Your task to perform on an android device: install app "Google Home" Image 0: 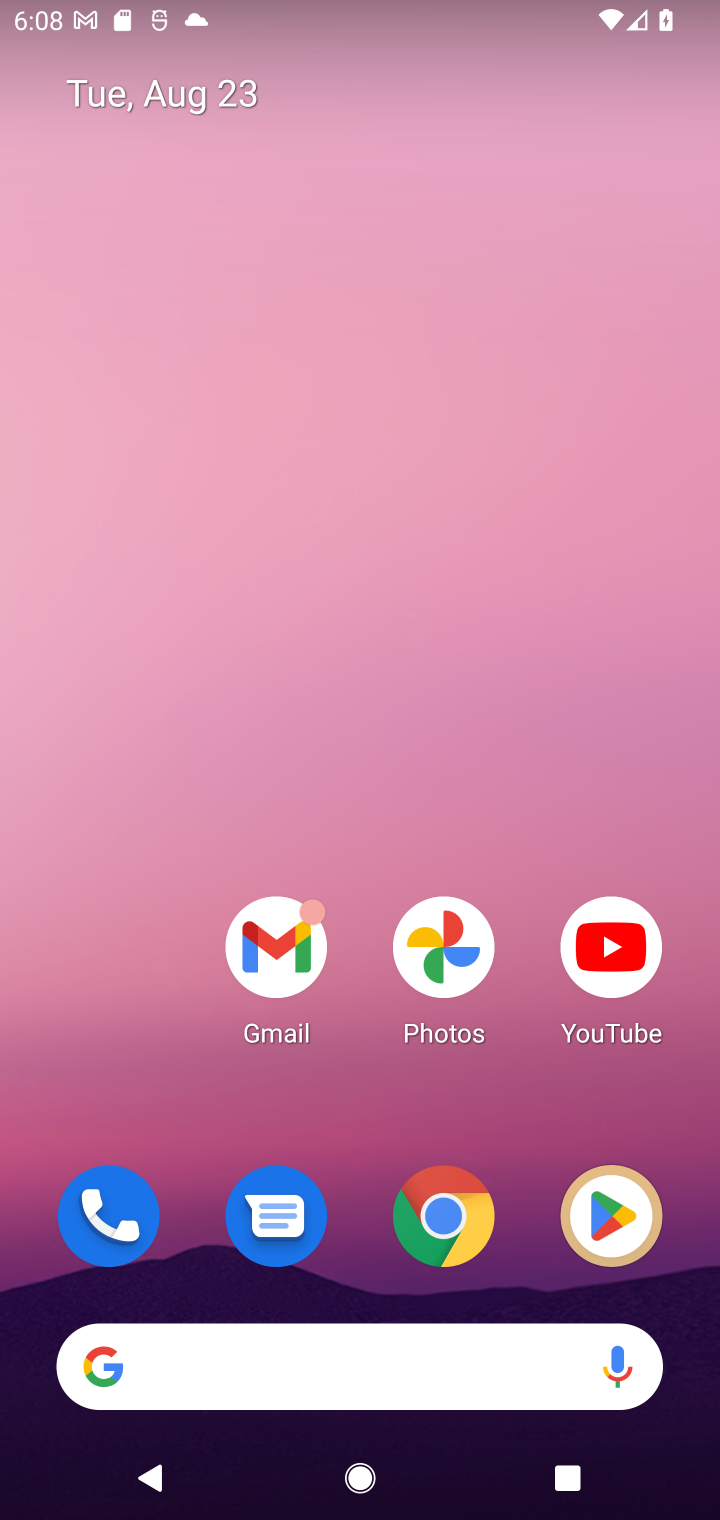
Step 0: press home button
Your task to perform on an android device: install app "Google Home" Image 1: 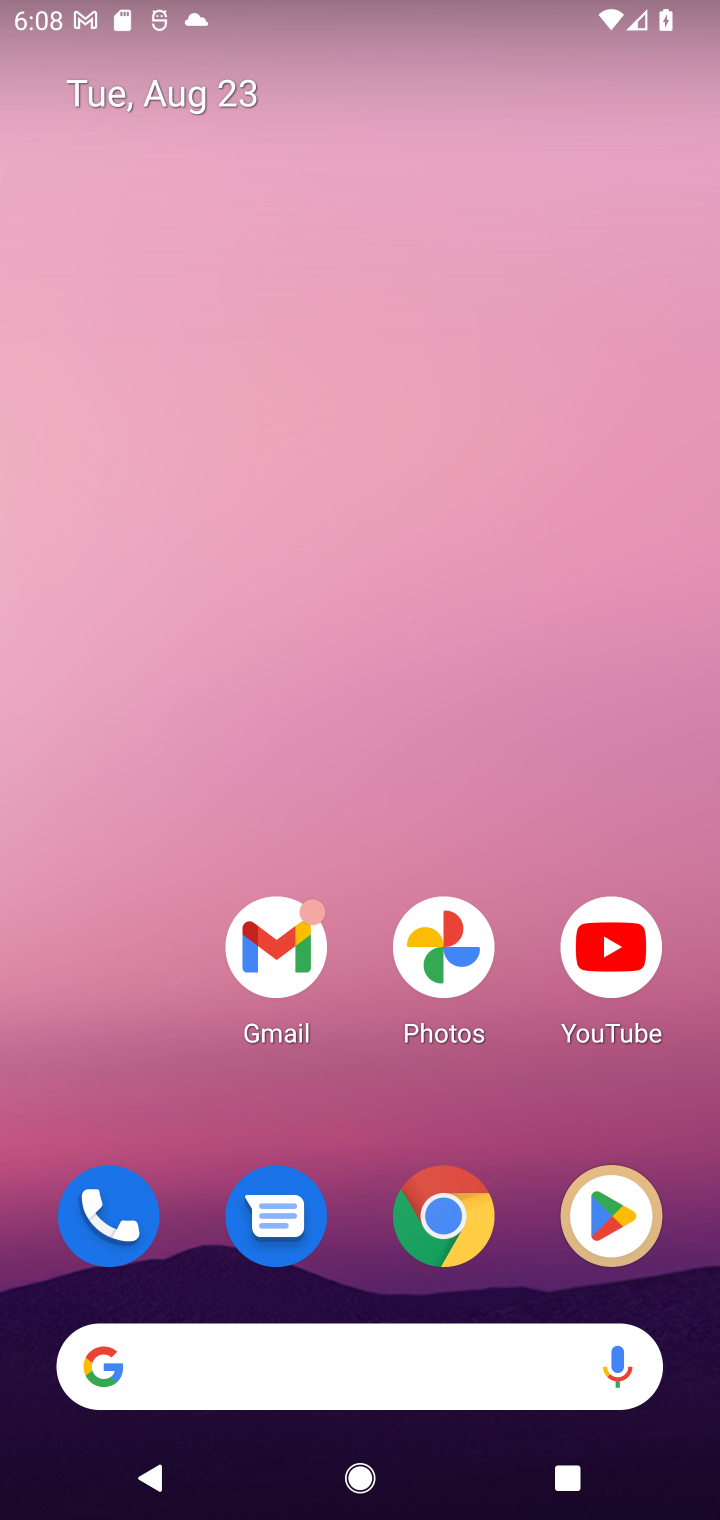
Step 1: drag from (341, 1170) to (508, 223)
Your task to perform on an android device: install app "Google Home" Image 2: 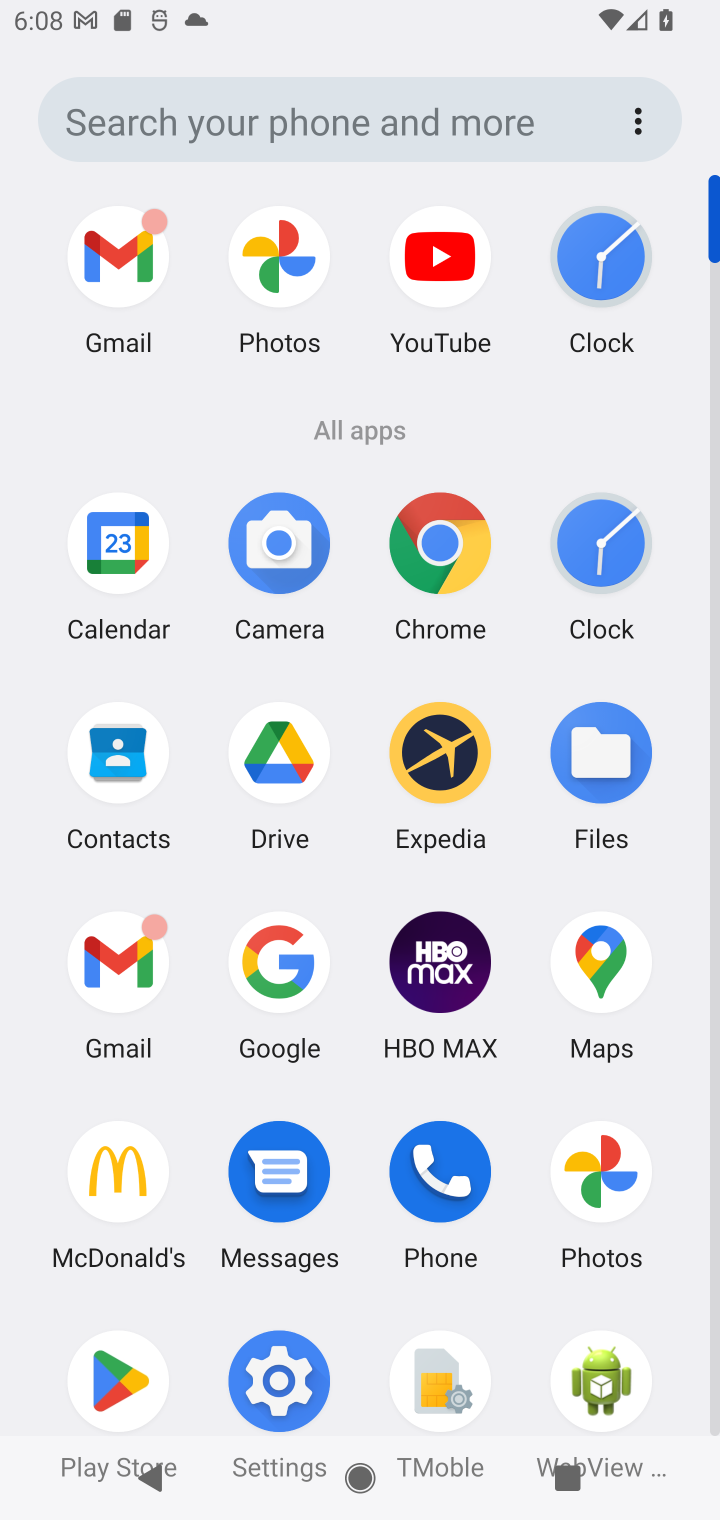
Step 2: click (148, 1385)
Your task to perform on an android device: install app "Google Home" Image 3: 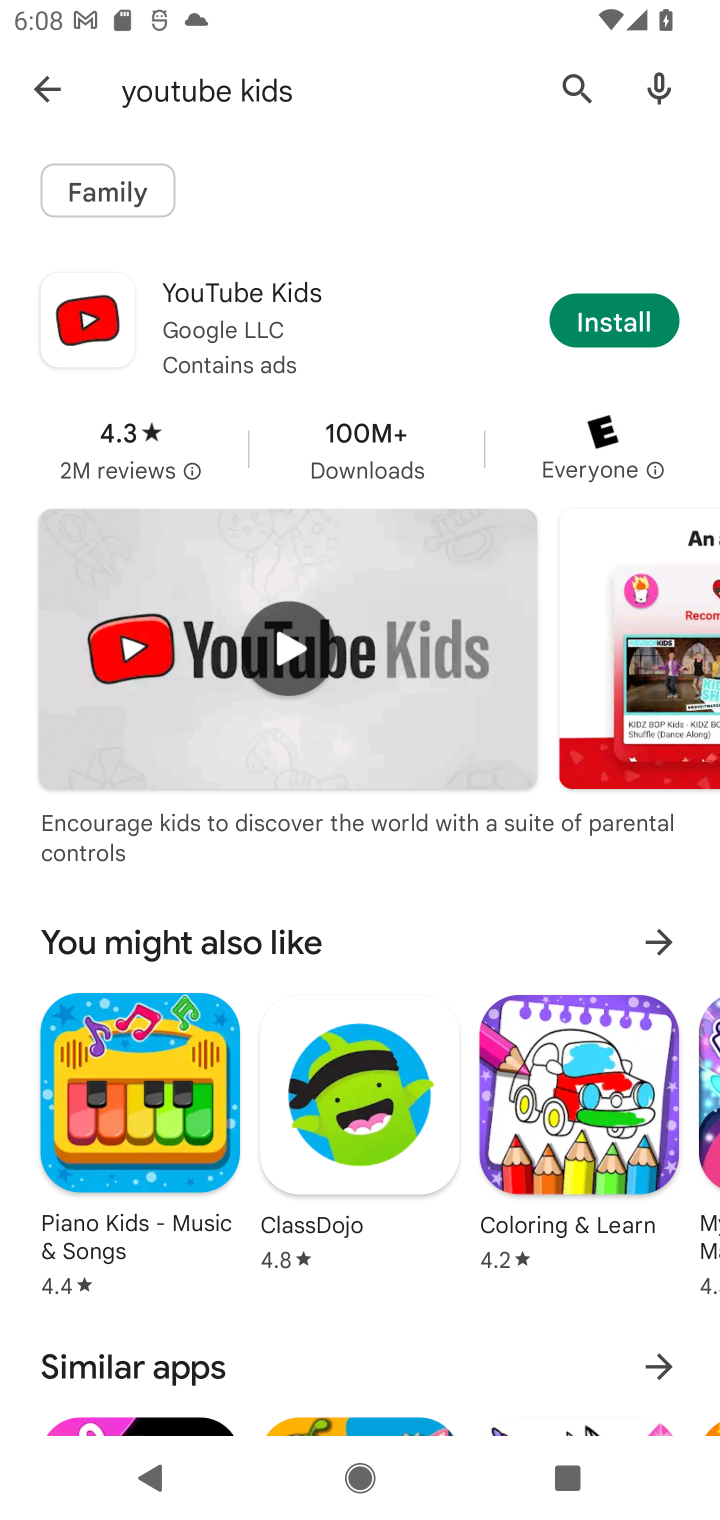
Step 3: drag from (574, 123) to (644, 123)
Your task to perform on an android device: install app "Google Home" Image 4: 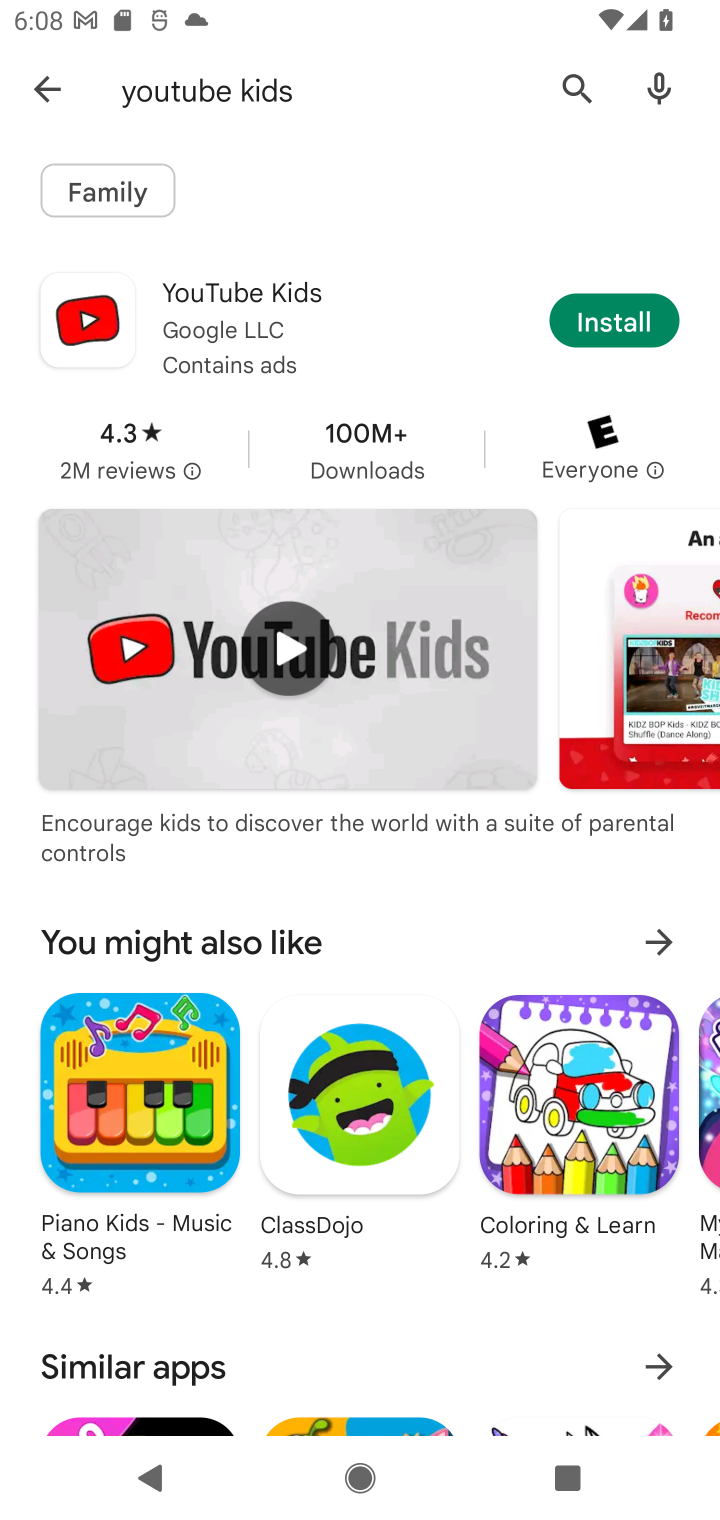
Step 4: click (578, 81)
Your task to perform on an android device: install app "Google Home" Image 5: 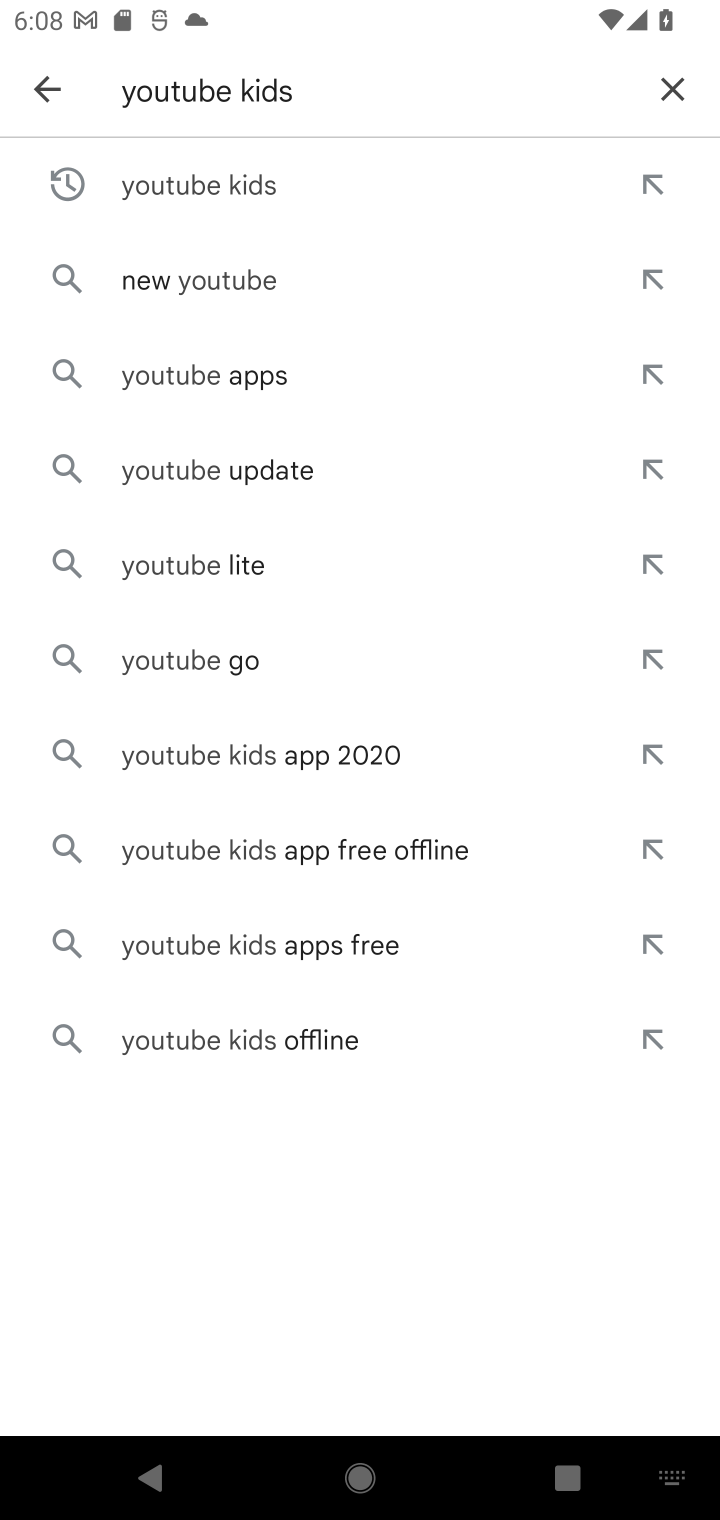
Step 5: click (669, 85)
Your task to perform on an android device: install app "Google Home" Image 6: 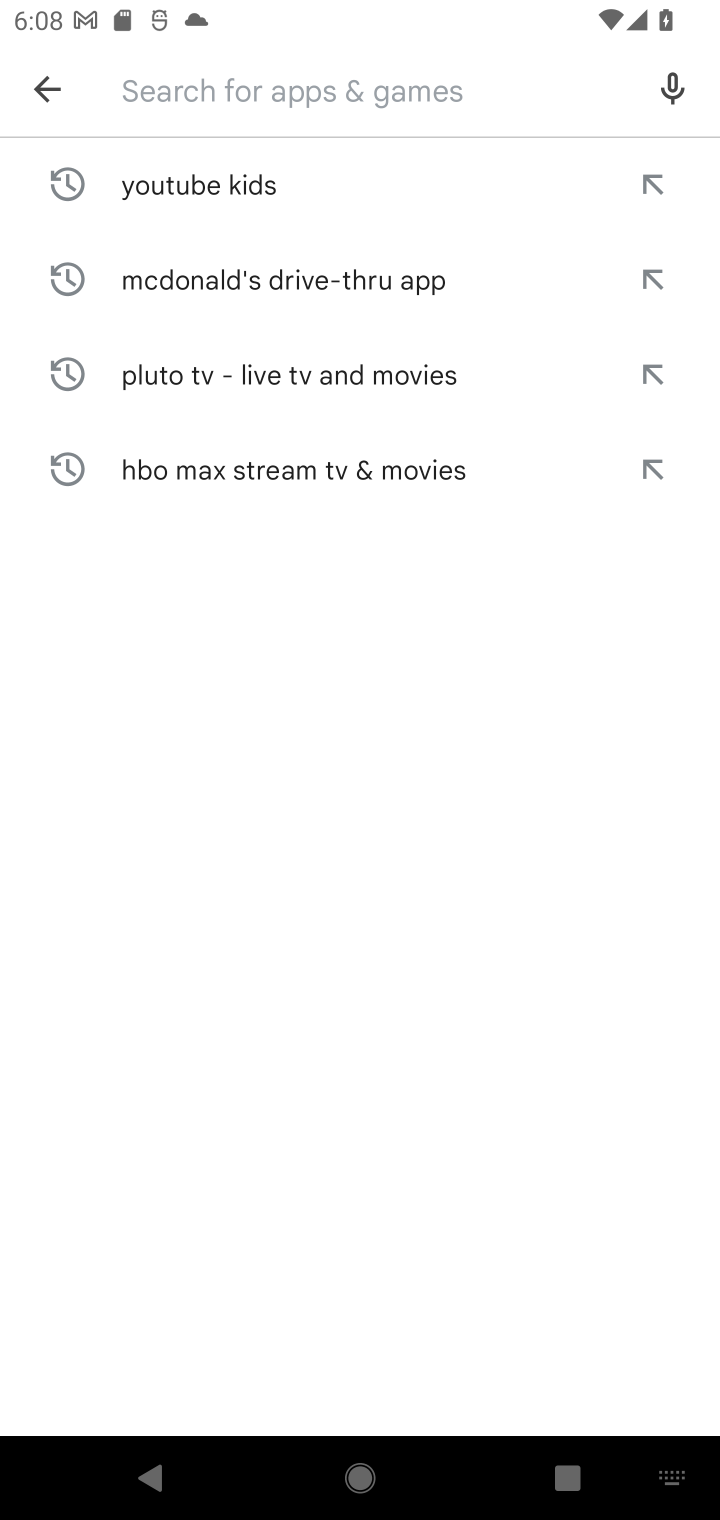
Step 6: type "Google Home"
Your task to perform on an android device: install app "Google Home" Image 7: 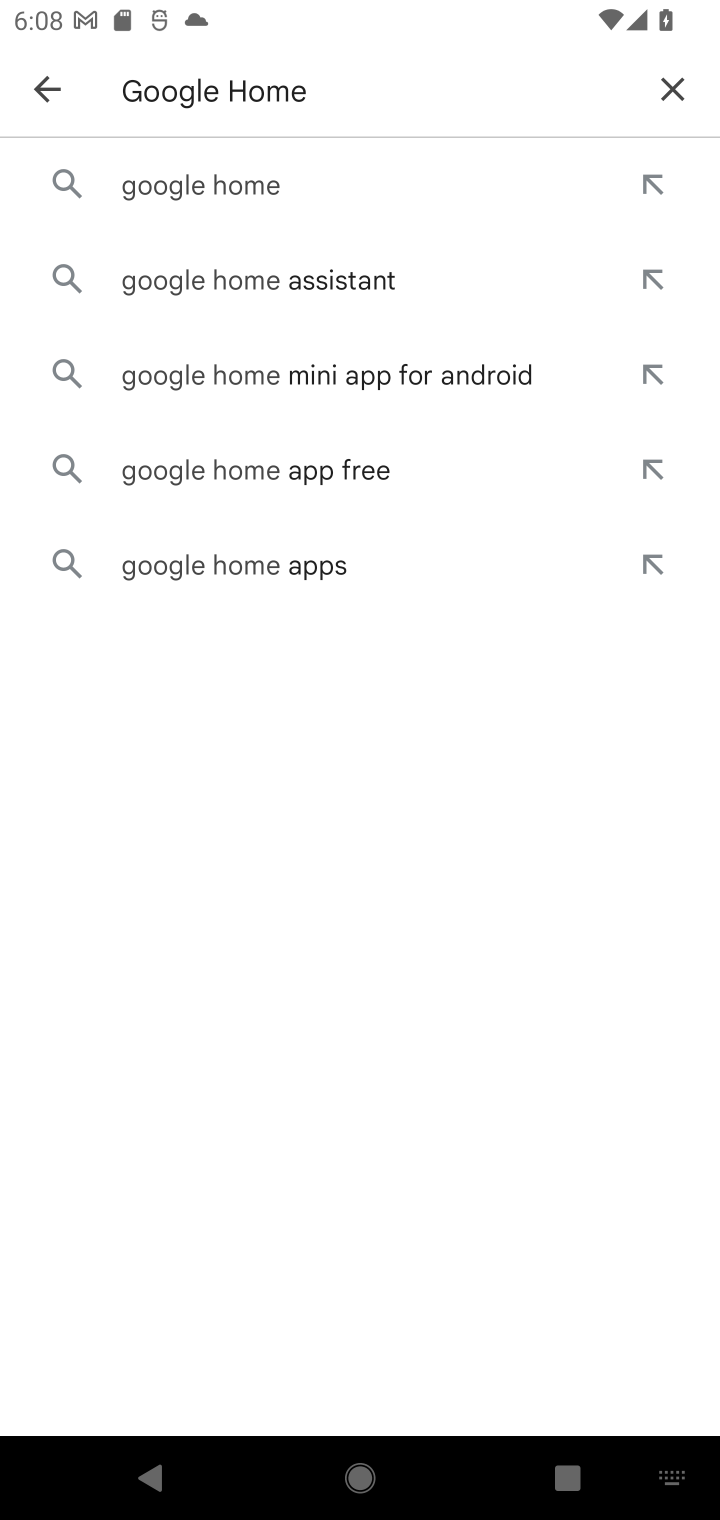
Step 7: click (242, 188)
Your task to perform on an android device: install app "Google Home" Image 8: 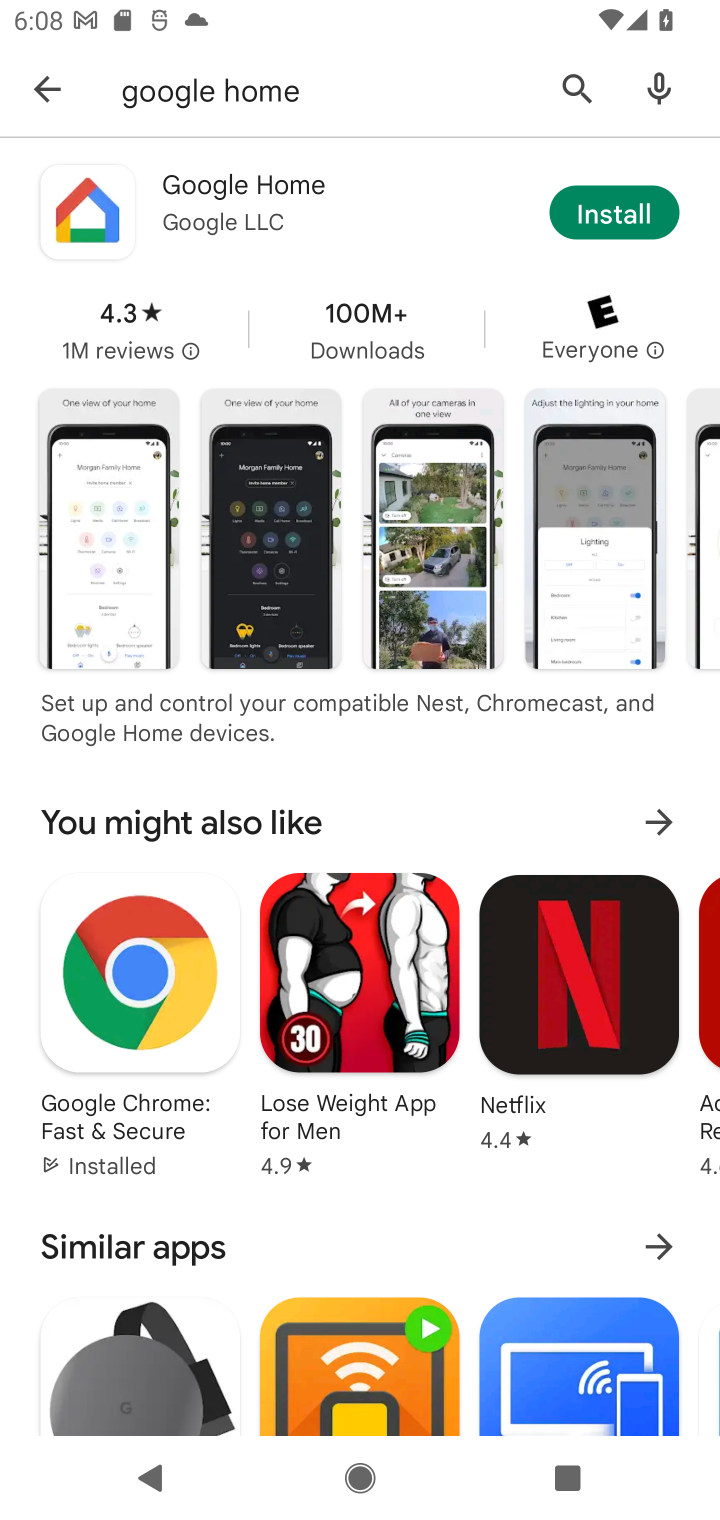
Step 8: click (650, 214)
Your task to perform on an android device: install app "Google Home" Image 9: 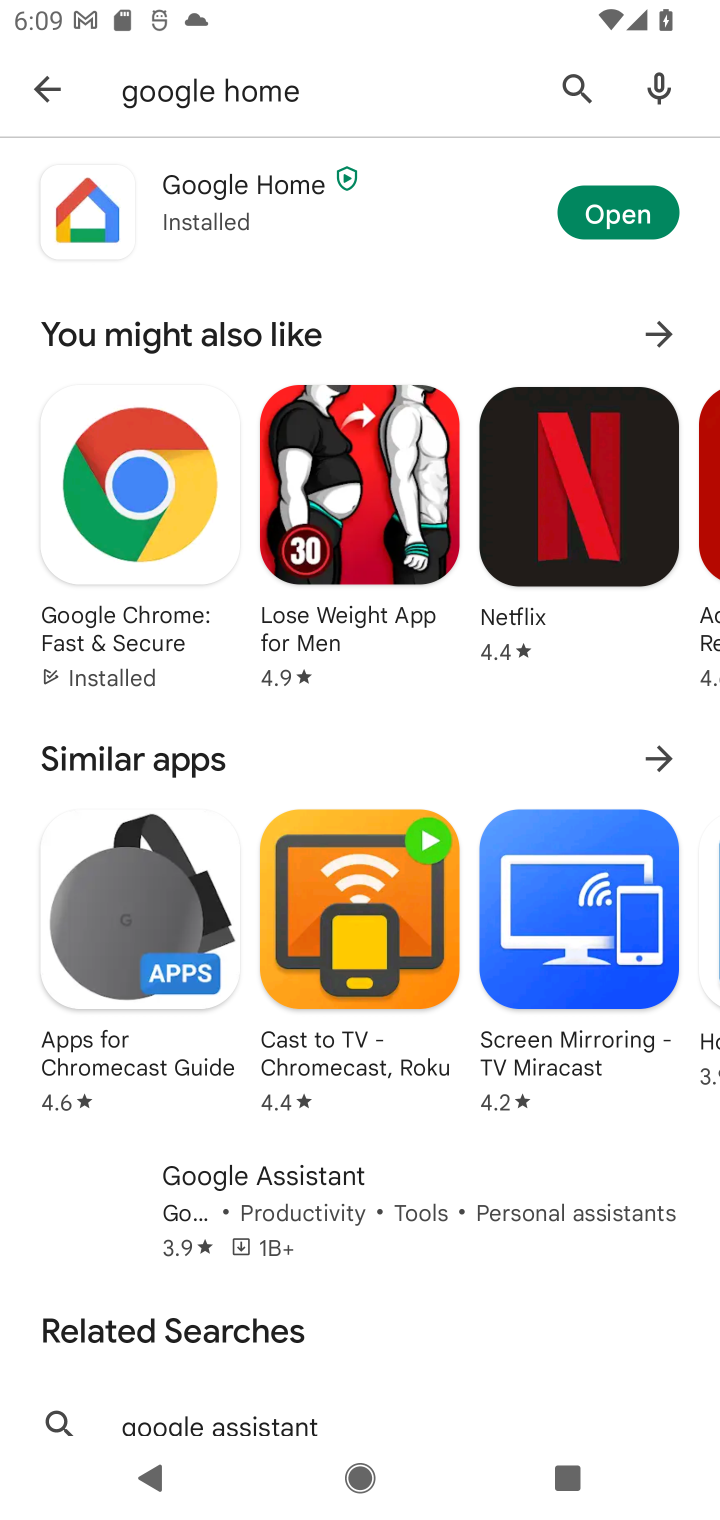
Step 9: click (611, 233)
Your task to perform on an android device: install app "Google Home" Image 10: 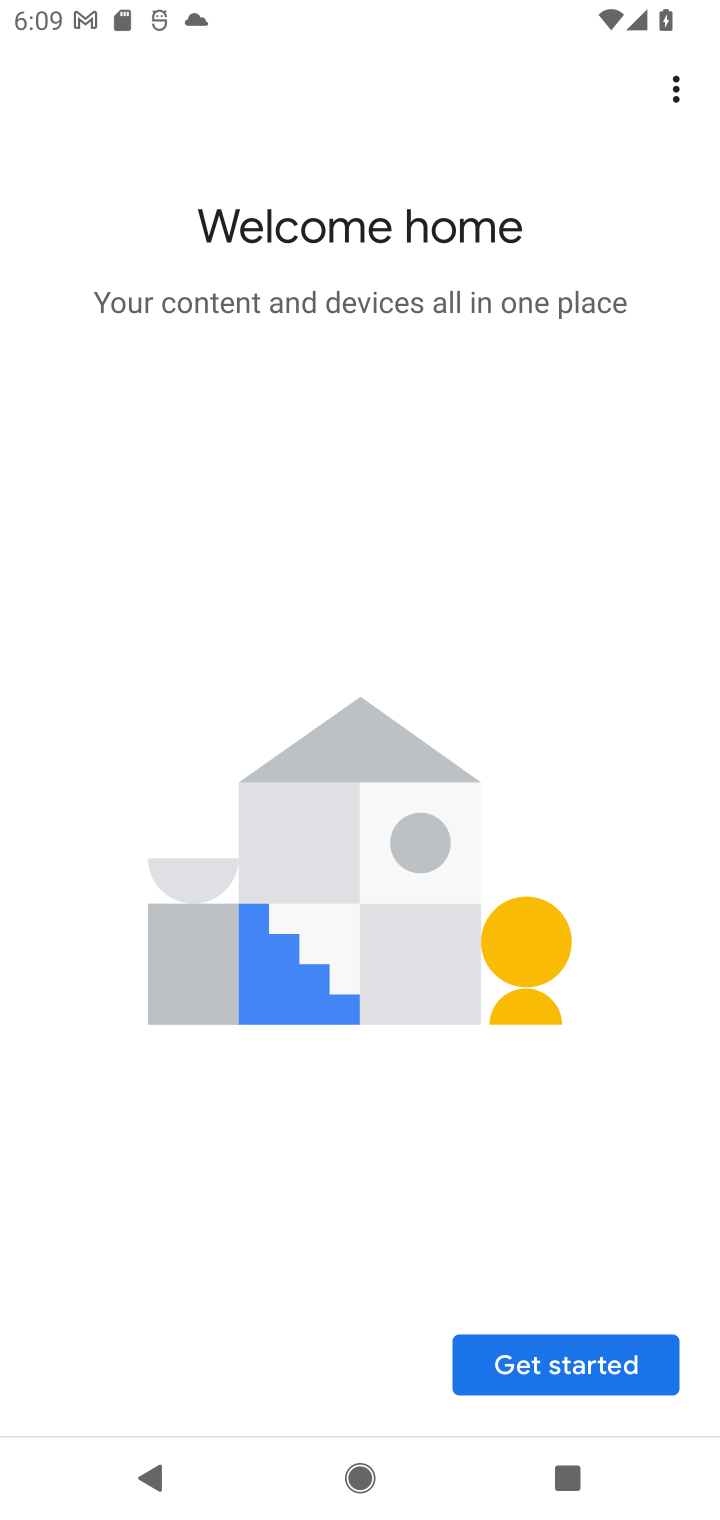
Step 10: task complete